Your task to perform on an android device: Show me the alarms in the clock app Image 0: 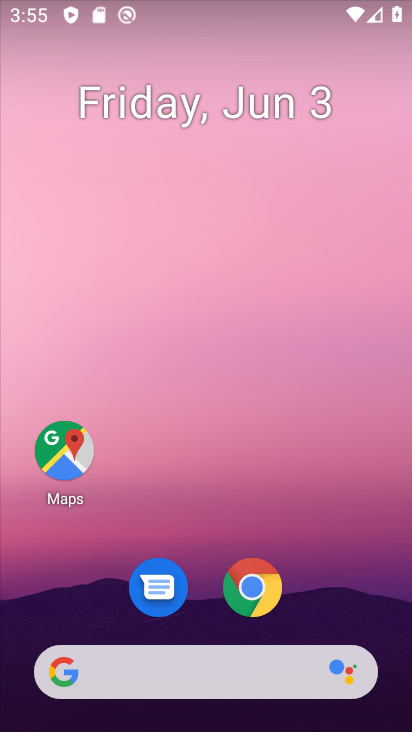
Step 0: drag from (335, 597) to (304, 7)
Your task to perform on an android device: Show me the alarms in the clock app Image 1: 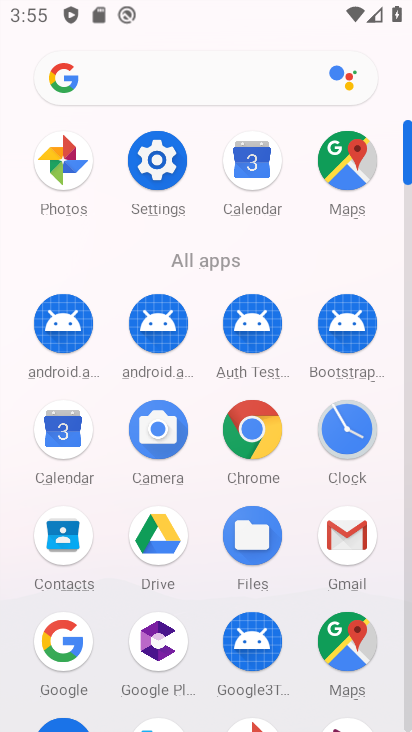
Step 1: click (334, 423)
Your task to perform on an android device: Show me the alarms in the clock app Image 2: 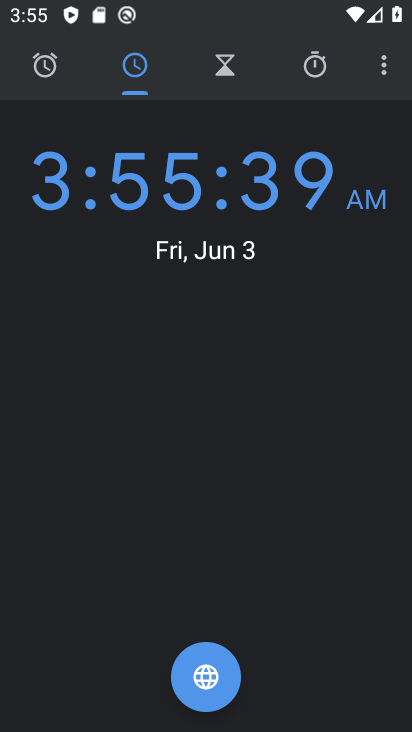
Step 2: click (36, 91)
Your task to perform on an android device: Show me the alarms in the clock app Image 3: 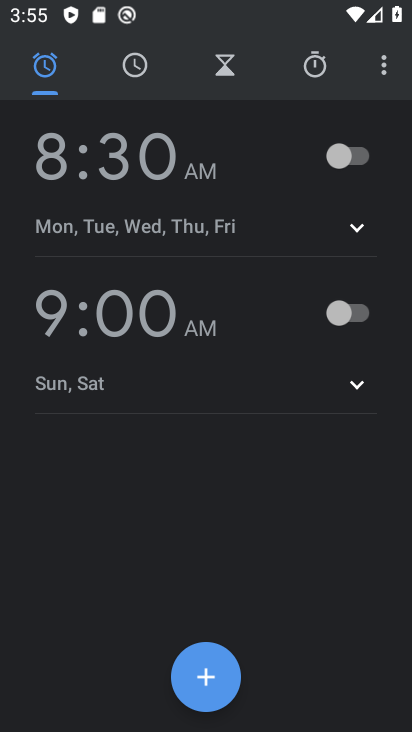
Step 3: task complete